Your task to perform on an android device: uninstall "Flipkart Online Shopping App" Image 0: 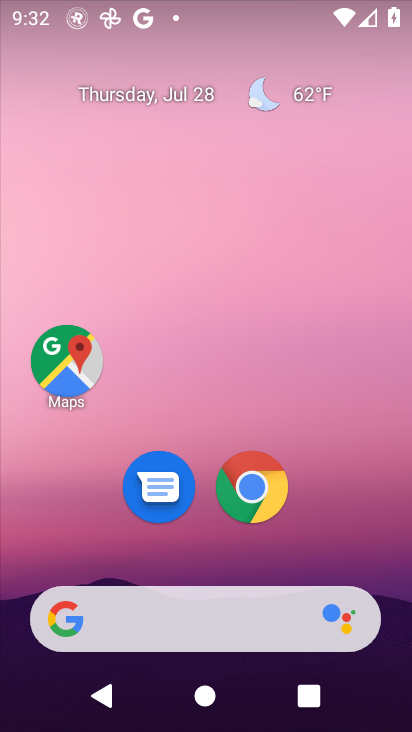
Step 0: click (243, 256)
Your task to perform on an android device: uninstall "Flipkart Online Shopping App" Image 1: 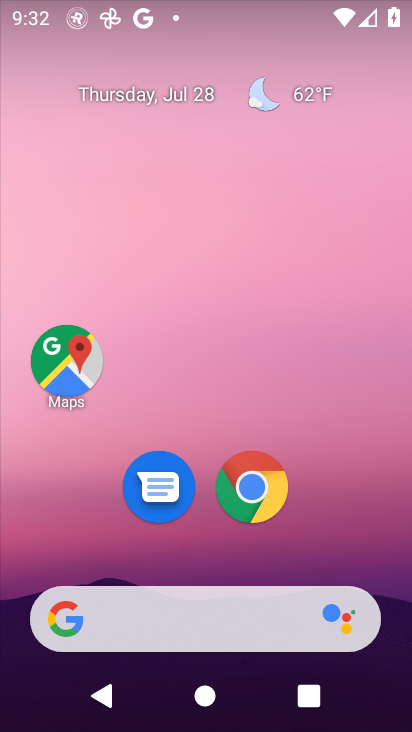
Step 1: drag from (239, 426) to (218, 208)
Your task to perform on an android device: uninstall "Flipkart Online Shopping App" Image 2: 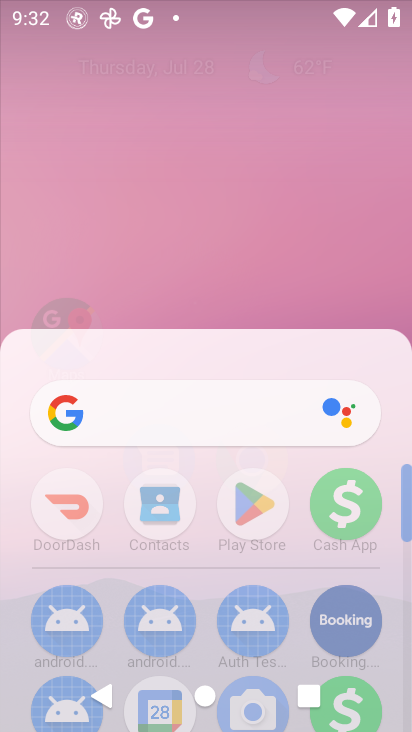
Step 2: drag from (282, 567) to (276, 339)
Your task to perform on an android device: uninstall "Flipkart Online Shopping App" Image 3: 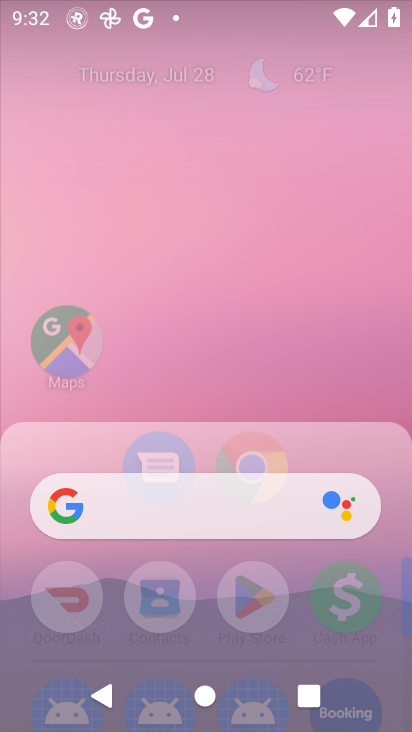
Step 3: drag from (243, 403) to (243, 225)
Your task to perform on an android device: uninstall "Flipkart Online Shopping App" Image 4: 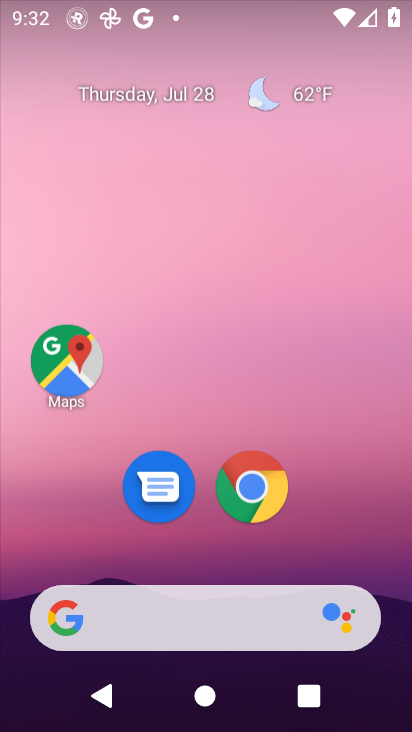
Step 4: drag from (242, 364) to (272, 175)
Your task to perform on an android device: uninstall "Flipkart Online Shopping App" Image 5: 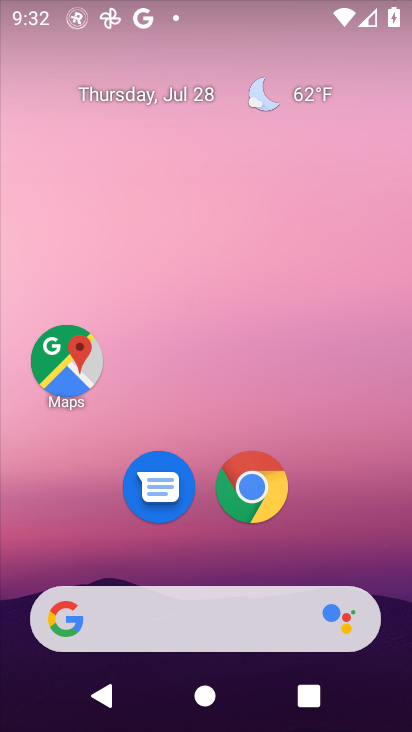
Step 5: drag from (258, 587) to (258, 331)
Your task to perform on an android device: uninstall "Flipkart Online Shopping App" Image 6: 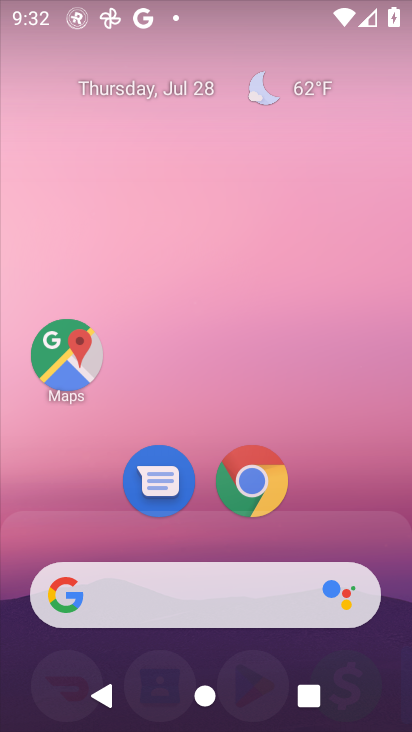
Step 6: drag from (265, 347) to (267, 280)
Your task to perform on an android device: uninstall "Flipkart Online Shopping App" Image 7: 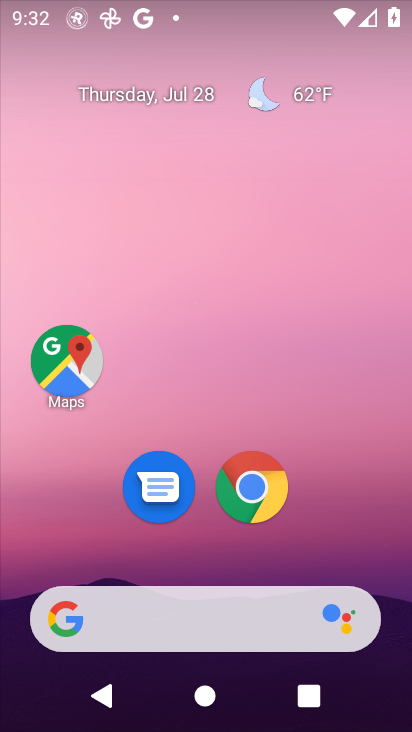
Step 7: drag from (261, 454) to (261, 282)
Your task to perform on an android device: uninstall "Flipkart Online Shopping App" Image 8: 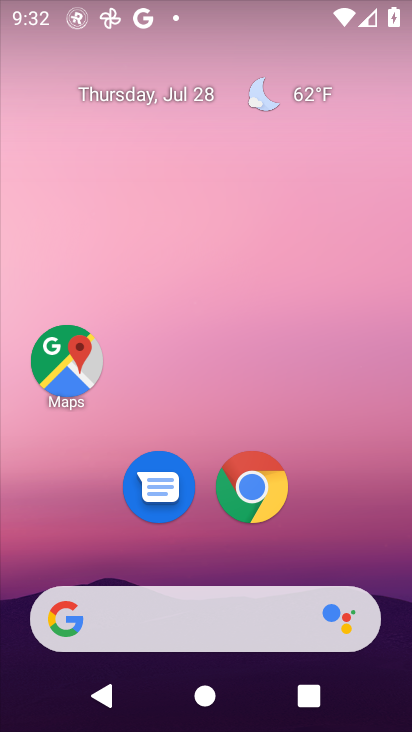
Step 8: drag from (255, 559) to (255, 266)
Your task to perform on an android device: uninstall "Flipkart Online Shopping App" Image 9: 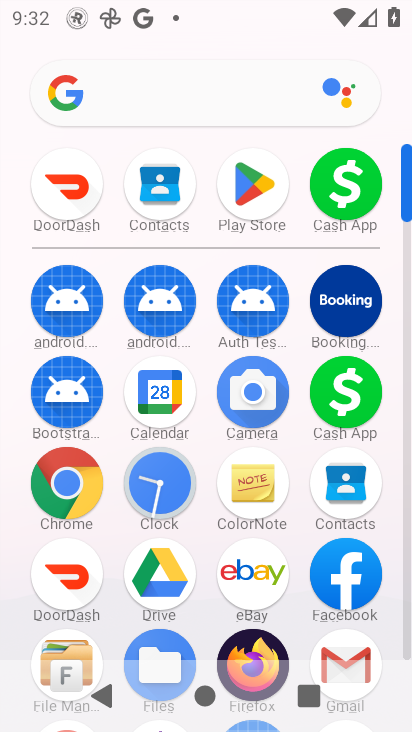
Step 9: click (262, 187)
Your task to perform on an android device: uninstall "Flipkart Online Shopping App" Image 10: 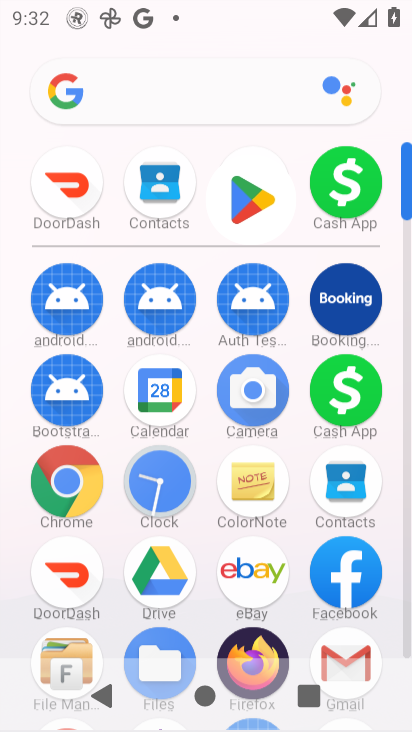
Step 10: click (261, 186)
Your task to perform on an android device: uninstall "Flipkart Online Shopping App" Image 11: 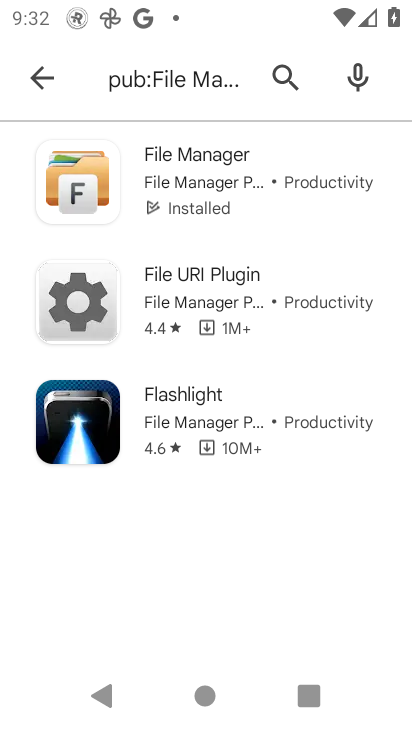
Step 11: click (34, 73)
Your task to perform on an android device: uninstall "Flipkart Online Shopping App" Image 12: 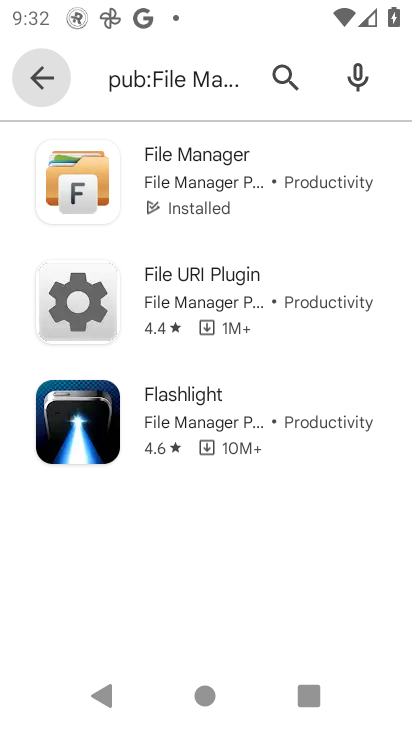
Step 12: click (36, 72)
Your task to perform on an android device: uninstall "Flipkart Online Shopping App" Image 13: 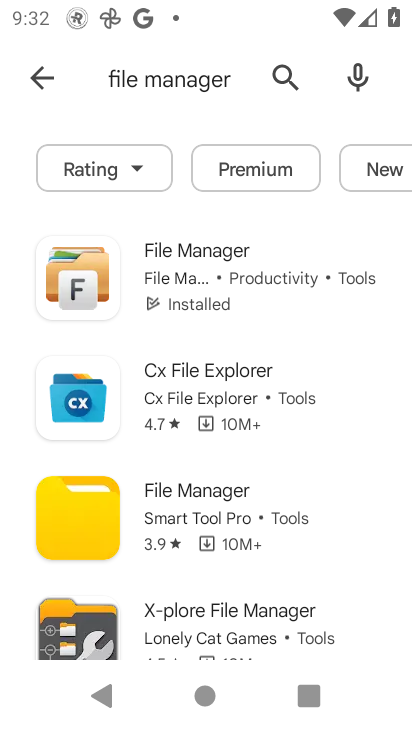
Step 13: click (41, 69)
Your task to perform on an android device: uninstall "Flipkart Online Shopping App" Image 14: 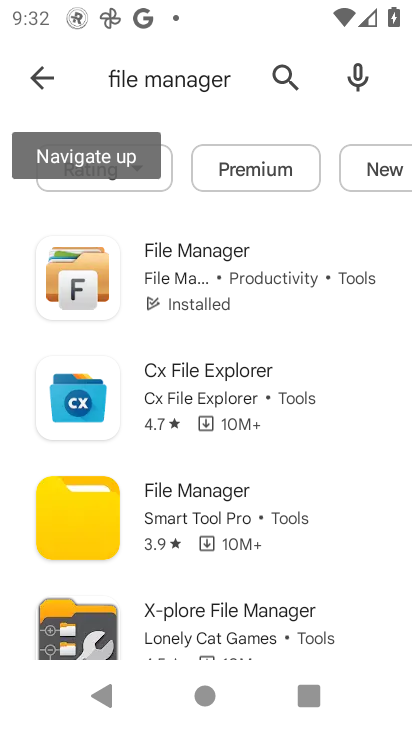
Step 14: click (38, 77)
Your task to perform on an android device: uninstall "Flipkart Online Shopping App" Image 15: 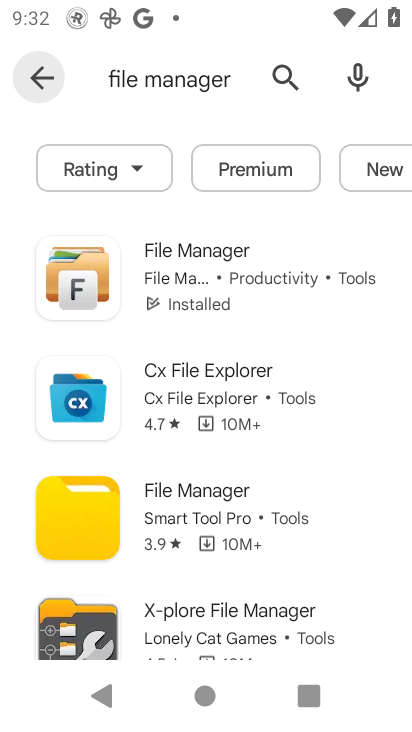
Step 15: click (38, 77)
Your task to perform on an android device: uninstall "Flipkart Online Shopping App" Image 16: 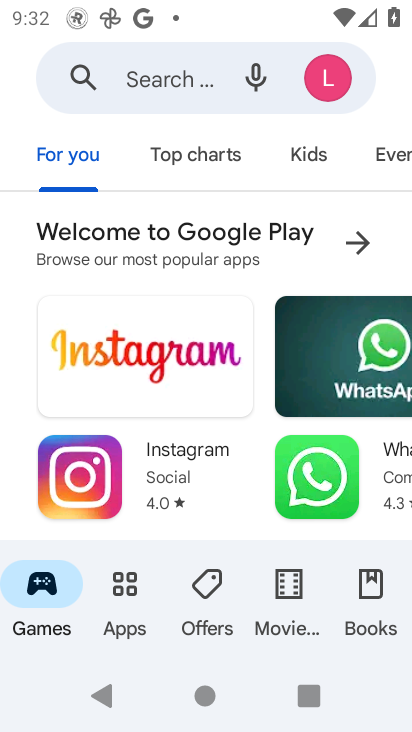
Step 16: click (38, 77)
Your task to perform on an android device: uninstall "Flipkart Online Shopping App" Image 17: 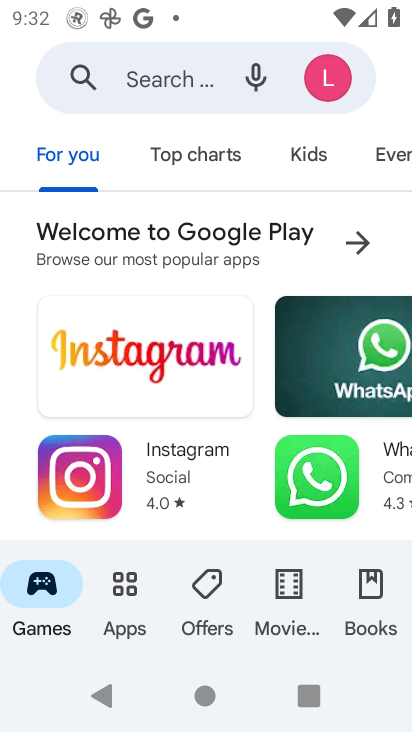
Step 17: click (147, 72)
Your task to perform on an android device: uninstall "Flipkart Online Shopping App" Image 18: 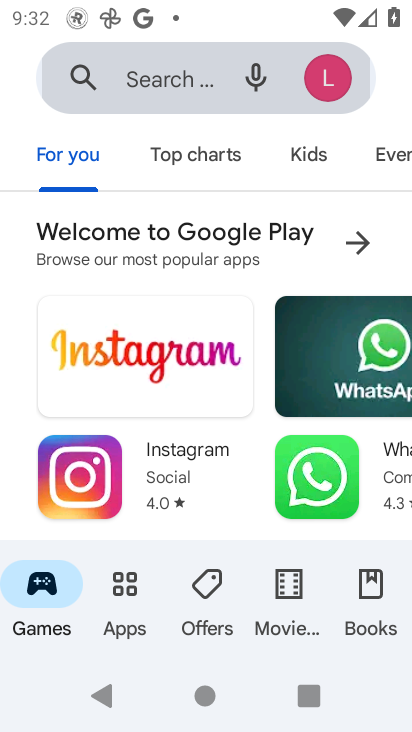
Step 18: click (147, 72)
Your task to perform on an android device: uninstall "Flipkart Online Shopping App" Image 19: 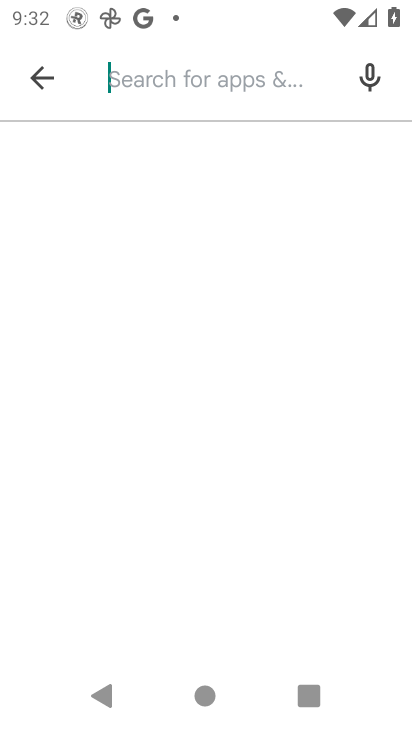
Step 19: click (147, 71)
Your task to perform on an android device: uninstall "Flipkart Online Shopping App" Image 20: 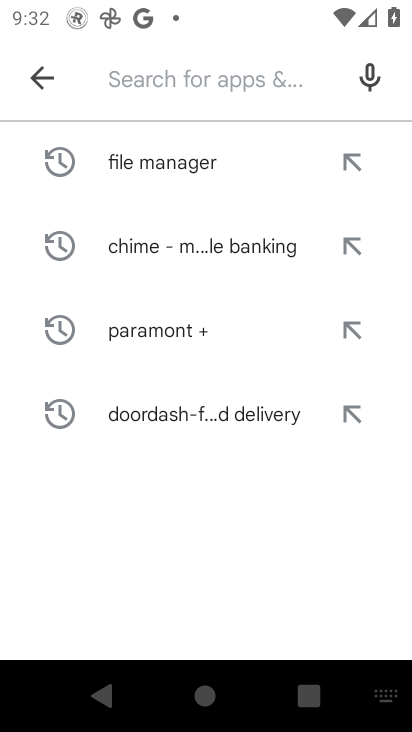
Step 20: type "Flickkart online Shopping App"
Your task to perform on an android device: uninstall "Flipkart Online Shopping App" Image 21: 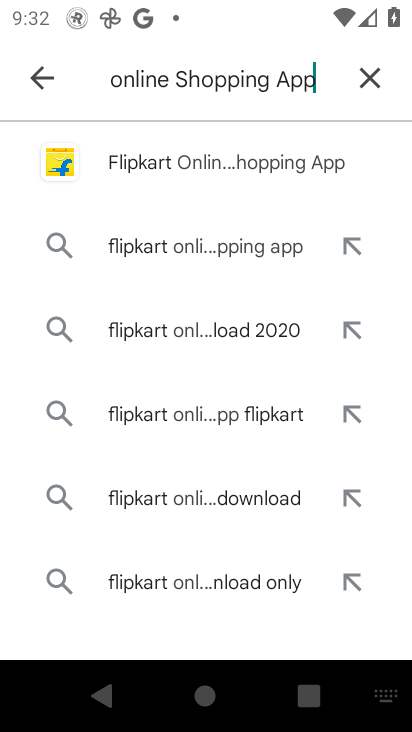
Step 21: click (275, 169)
Your task to perform on an android device: uninstall "Flipkart Online Shopping App" Image 22: 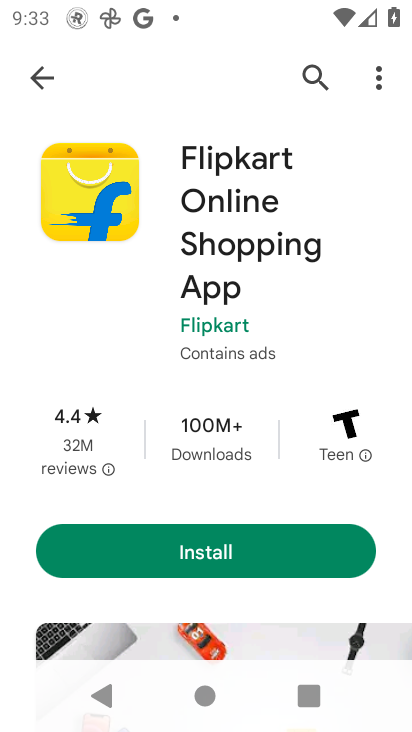
Step 22: click (223, 559)
Your task to perform on an android device: uninstall "Flipkart Online Shopping App" Image 23: 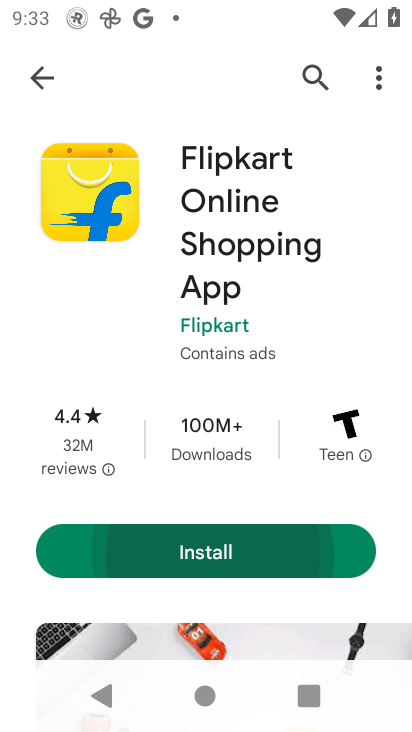
Step 23: click (225, 559)
Your task to perform on an android device: uninstall "Flipkart Online Shopping App" Image 24: 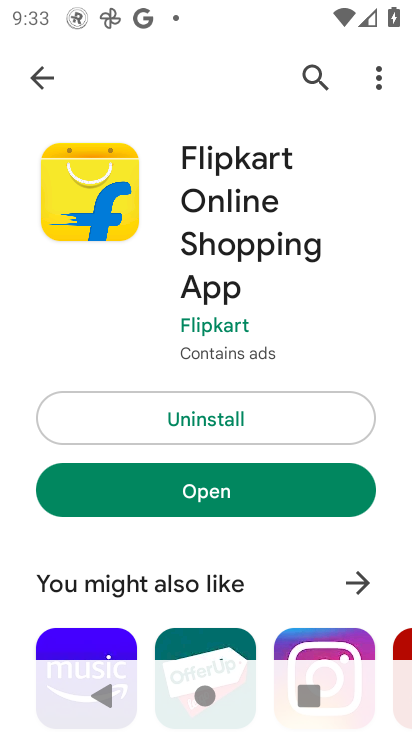
Step 24: click (209, 397)
Your task to perform on an android device: uninstall "Flipkart Online Shopping App" Image 25: 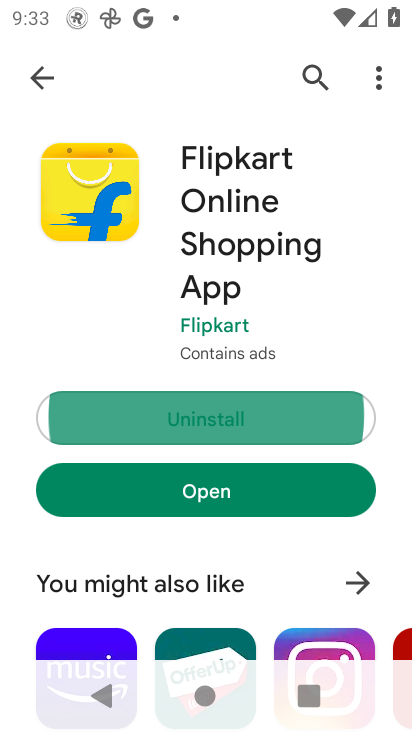
Step 25: click (206, 401)
Your task to perform on an android device: uninstall "Flipkart Online Shopping App" Image 26: 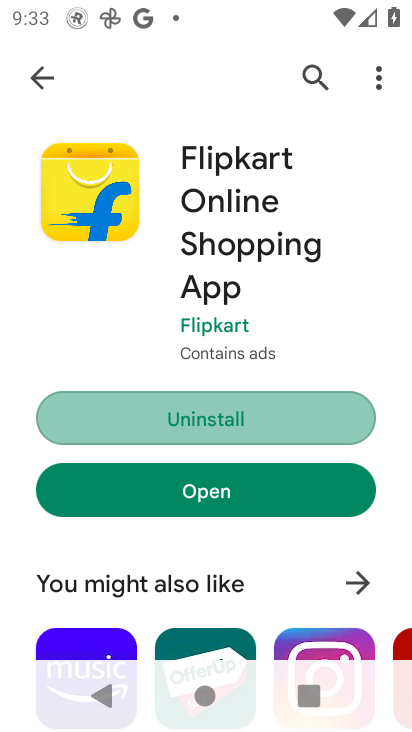
Step 26: click (205, 402)
Your task to perform on an android device: uninstall "Flipkart Online Shopping App" Image 27: 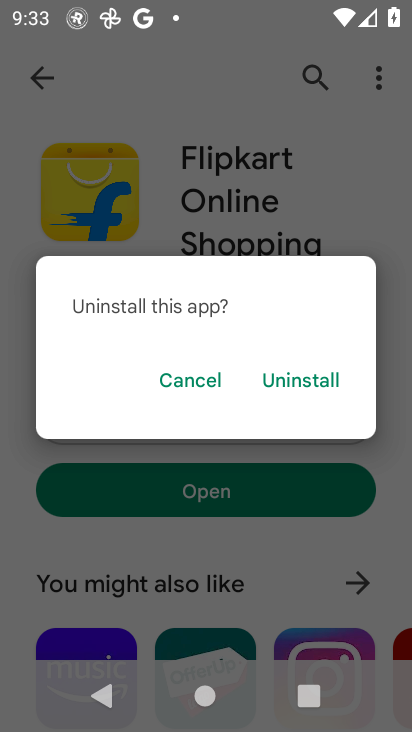
Step 27: click (309, 376)
Your task to perform on an android device: uninstall "Flipkart Online Shopping App" Image 28: 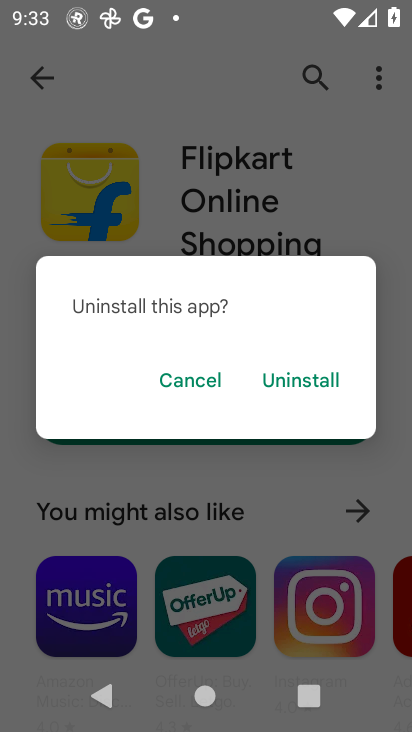
Step 28: click (305, 377)
Your task to perform on an android device: uninstall "Flipkart Online Shopping App" Image 29: 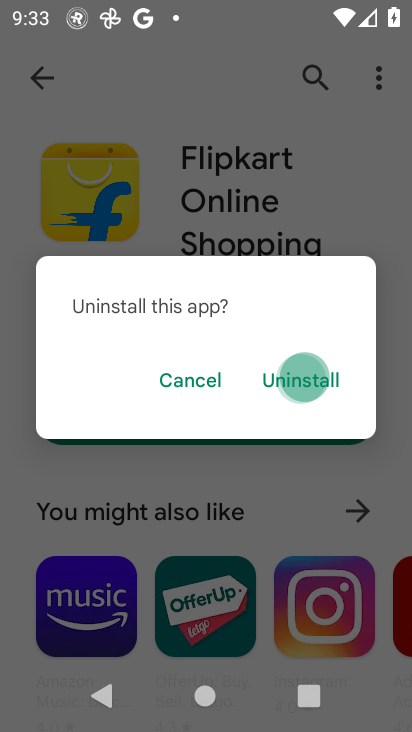
Step 29: click (306, 376)
Your task to perform on an android device: uninstall "Flipkart Online Shopping App" Image 30: 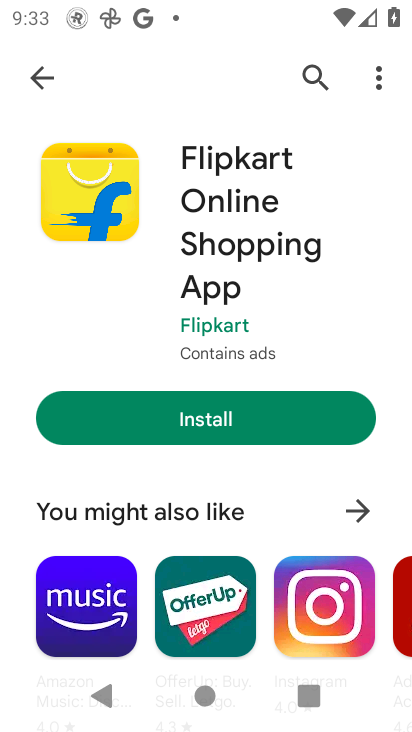
Step 30: click (307, 376)
Your task to perform on an android device: uninstall "Flipkart Online Shopping App" Image 31: 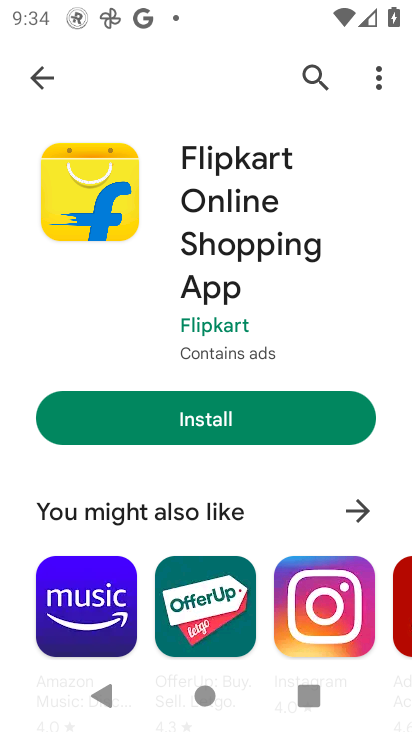
Step 31: task complete